Your task to perform on an android device: turn vacation reply on in the gmail app Image 0: 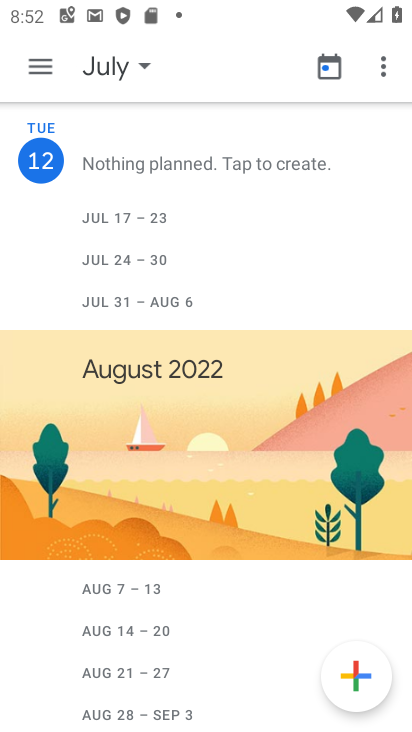
Step 0: task complete